Your task to perform on an android device: read, delete, or share a saved page in the chrome app Image 0: 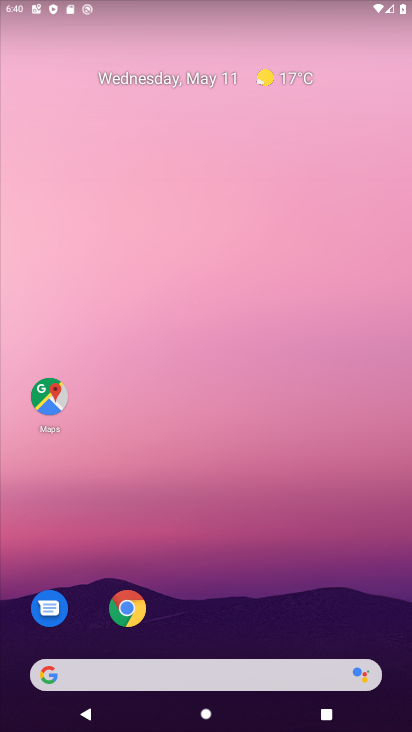
Step 0: drag from (216, 613) to (231, 337)
Your task to perform on an android device: read, delete, or share a saved page in the chrome app Image 1: 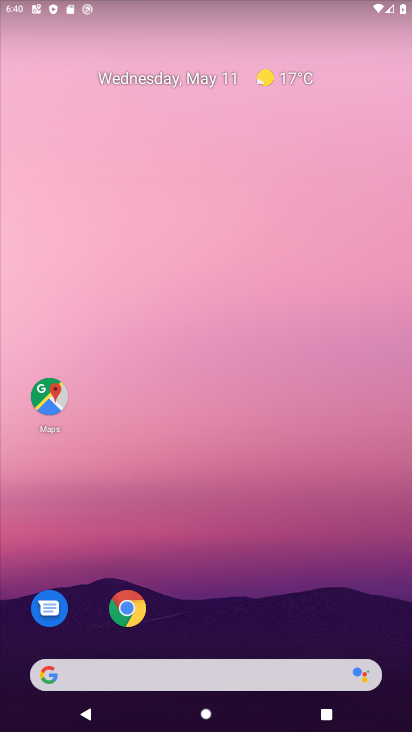
Step 1: drag from (265, 617) to (264, 178)
Your task to perform on an android device: read, delete, or share a saved page in the chrome app Image 2: 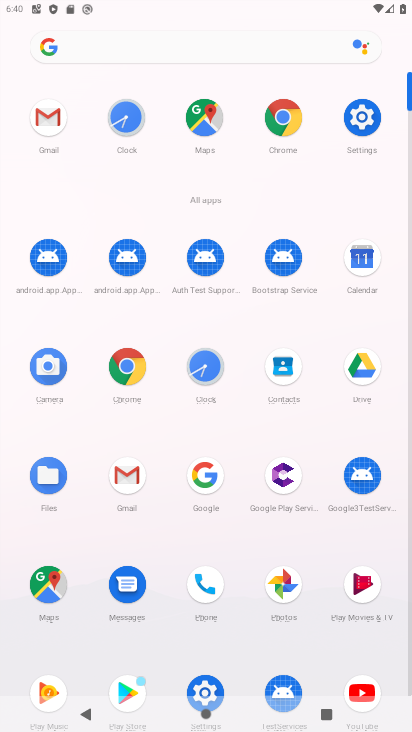
Step 2: click (275, 133)
Your task to perform on an android device: read, delete, or share a saved page in the chrome app Image 3: 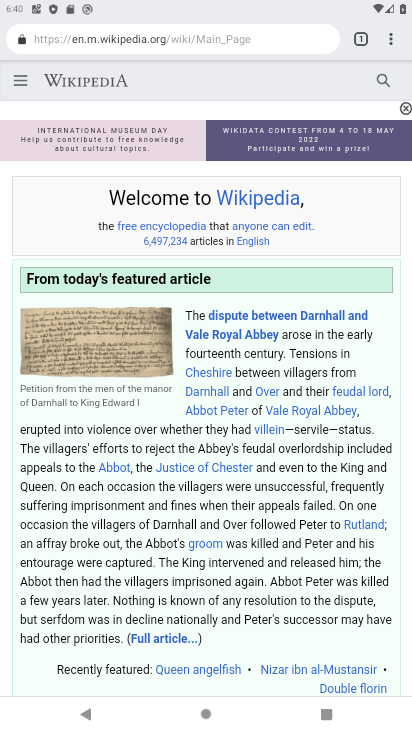
Step 3: click (394, 41)
Your task to perform on an android device: read, delete, or share a saved page in the chrome app Image 4: 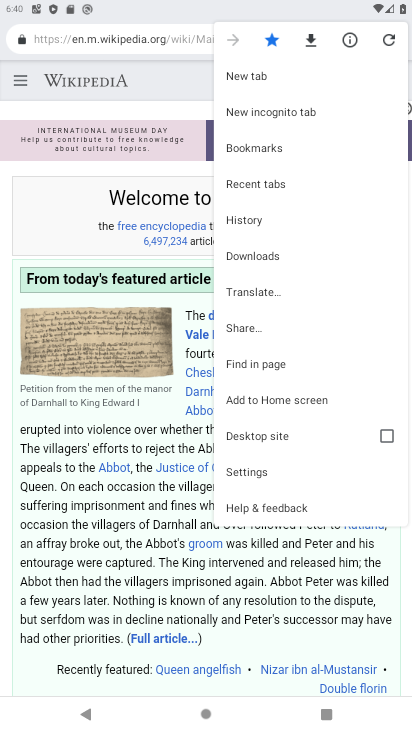
Step 4: click (322, 248)
Your task to perform on an android device: read, delete, or share a saved page in the chrome app Image 5: 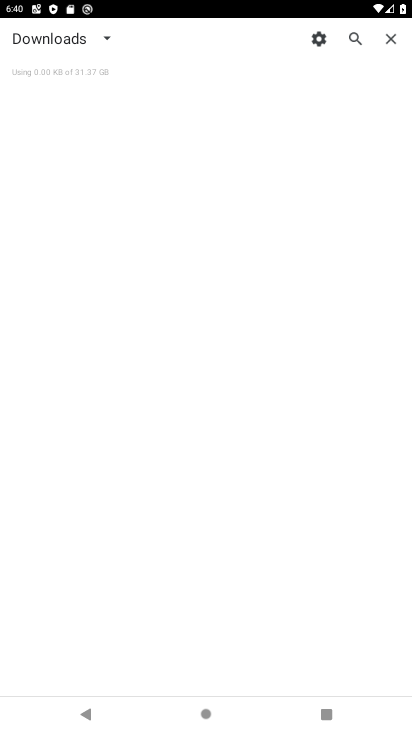
Step 5: task complete